Your task to perform on an android device: Turn on the flashlight Image 0: 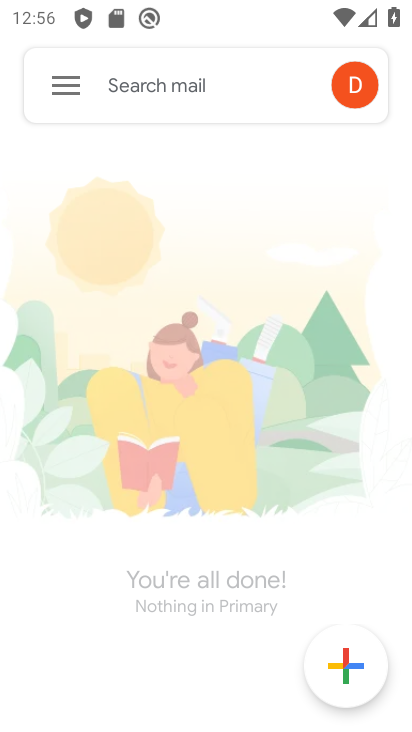
Step 0: press home button
Your task to perform on an android device: Turn on the flashlight Image 1: 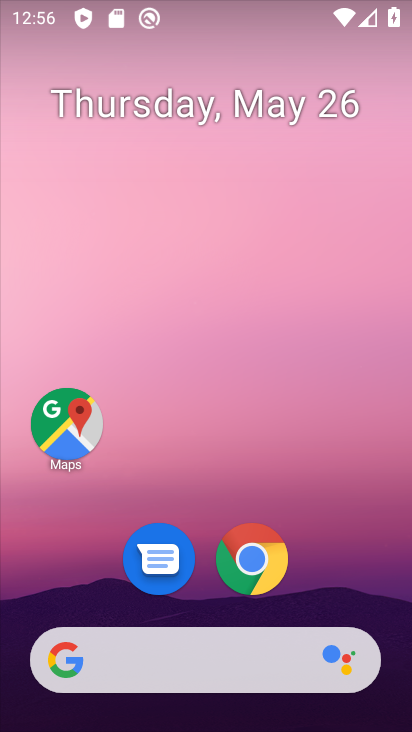
Step 1: task complete